Your task to perform on an android device: uninstall "Google Find My Device" Image 0: 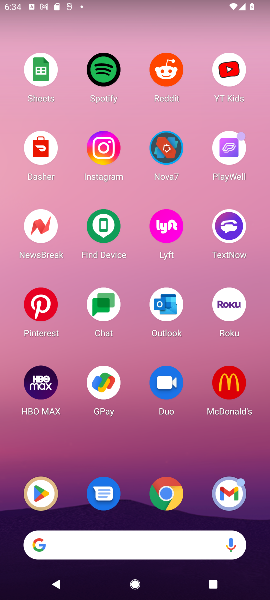
Step 0: click (40, 493)
Your task to perform on an android device: uninstall "Google Find My Device" Image 1: 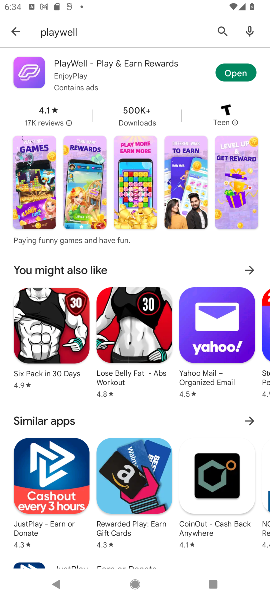
Step 1: click (224, 29)
Your task to perform on an android device: uninstall "Google Find My Device" Image 2: 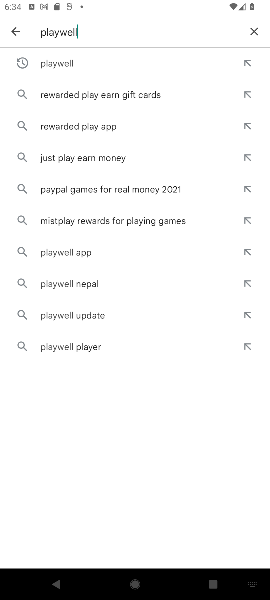
Step 2: click (254, 29)
Your task to perform on an android device: uninstall "Google Find My Device" Image 3: 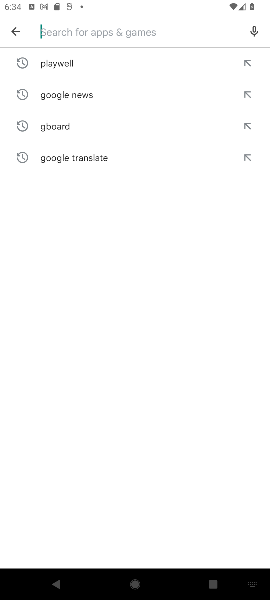
Step 3: type "Google Find My Device"
Your task to perform on an android device: uninstall "Google Find My Device" Image 4: 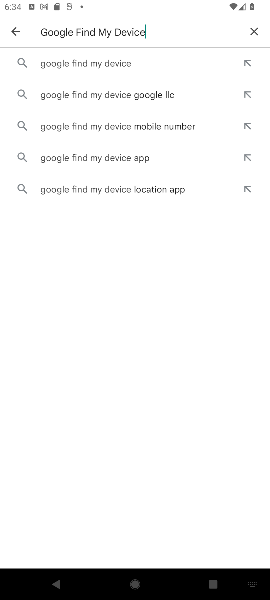
Step 4: click (118, 59)
Your task to perform on an android device: uninstall "Google Find My Device" Image 5: 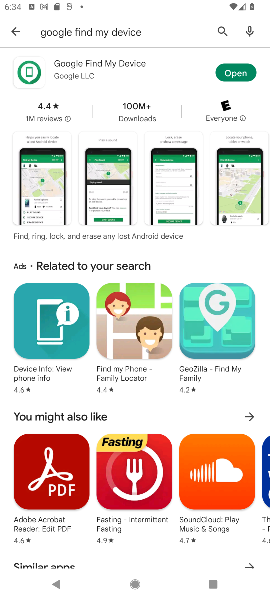
Step 5: click (62, 70)
Your task to perform on an android device: uninstall "Google Find My Device" Image 6: 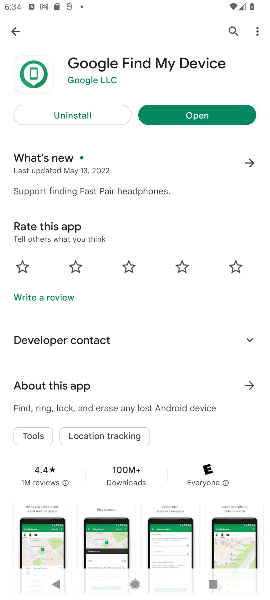
Step 6: click (70, 113)
Your task to perform on an android device: uninstall "Google Find My Device" Image 7: 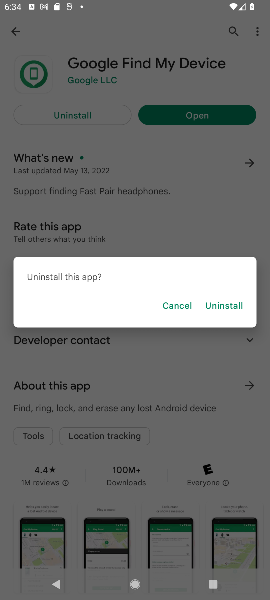
Step 7: click (222, 309)
Your task to perform on an android device: uninstall "Google Find My Device" Image 8: 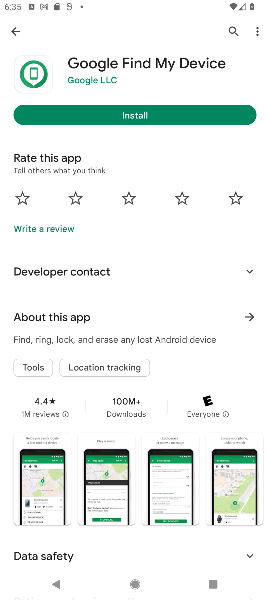
Step 8: task complete